Your task to perform on an android device: Go to ESPN.com Image 0: 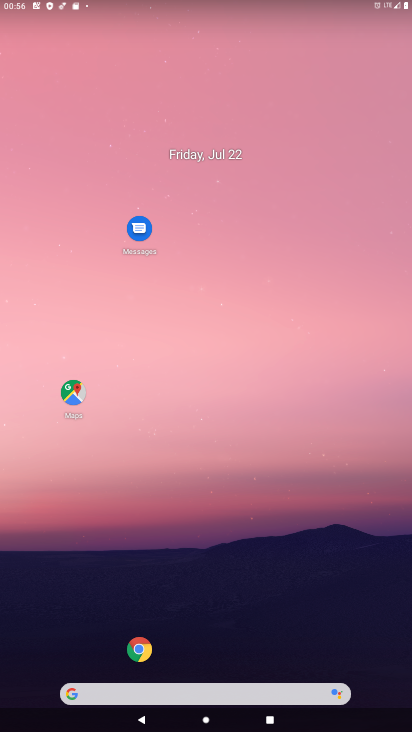
Step 0: click (83, 694)
Your task to perform on an android device: Go to ESPN.com Image 1: 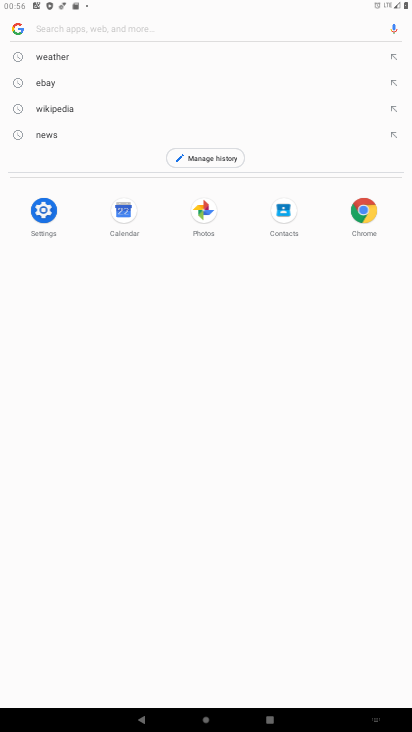
Step 1: type "ESPN.com"
Your task to perform on an android device: Go to ESPN.com Image 2: 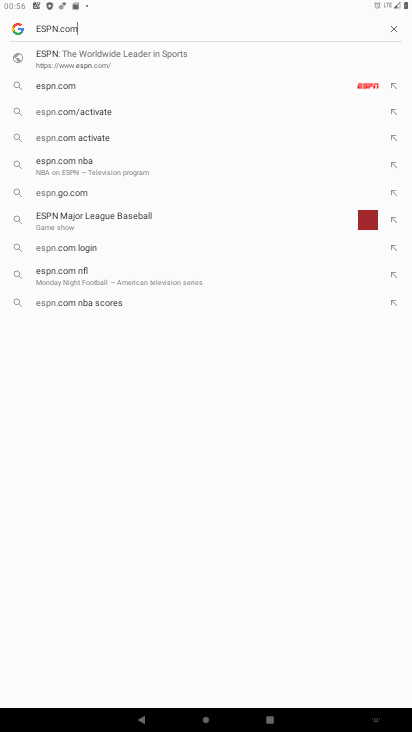
Step 2: type ""
Your task to perform on an android device: Go to ESPN.com Image 3: 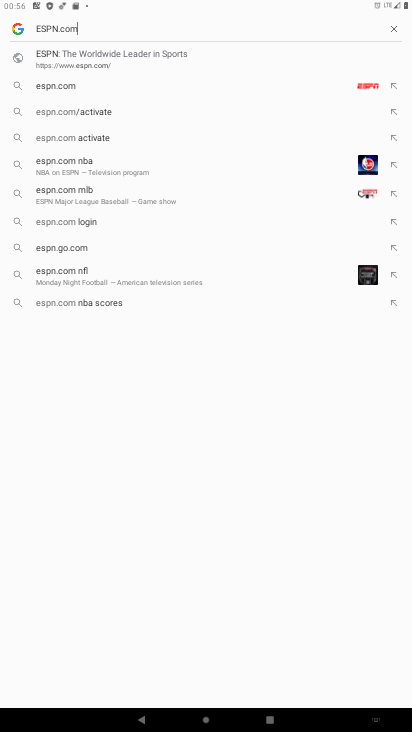
Step 3: click (44, 51)
Your task to perform on an android device: Go to ESPN.com Image 4: 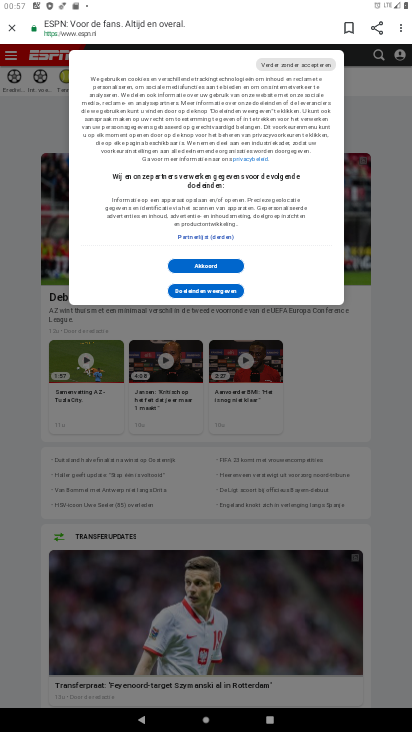
Step 4: task complete